Your task to perform on an android device: turn on notifications settings in the gmail app Image 0: 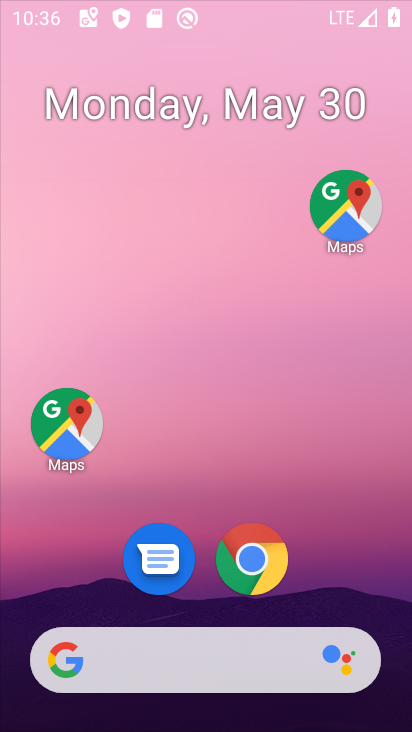
Step 0: click (347, 193)
Your task to perform on an android device: turn on notifications settings in the gmail app Image 1: 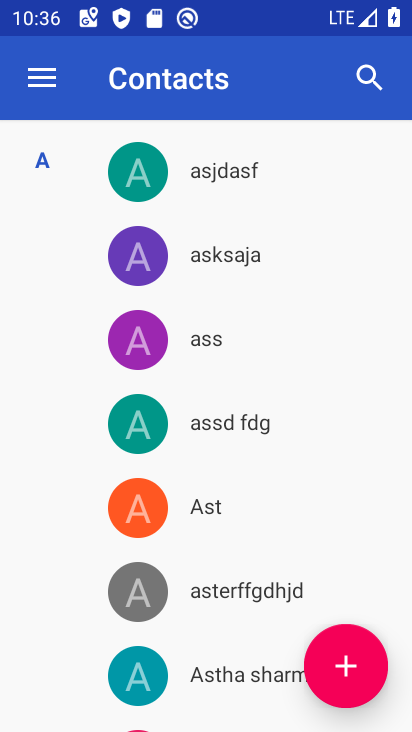
Step 1: press home button
Your task to perform on an android device: turn on notifications settings in the gmail app Image 2: 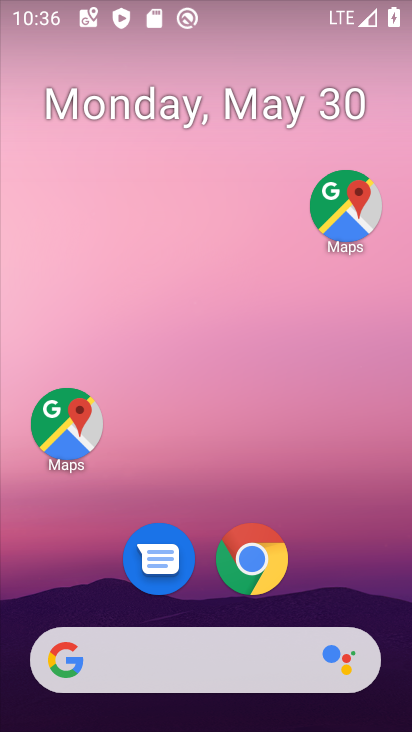
Step 2: drag from (318, 513) to (303, 162)
Your task to perform on an android device: turn on notifications settings in the gmail app Image 3: 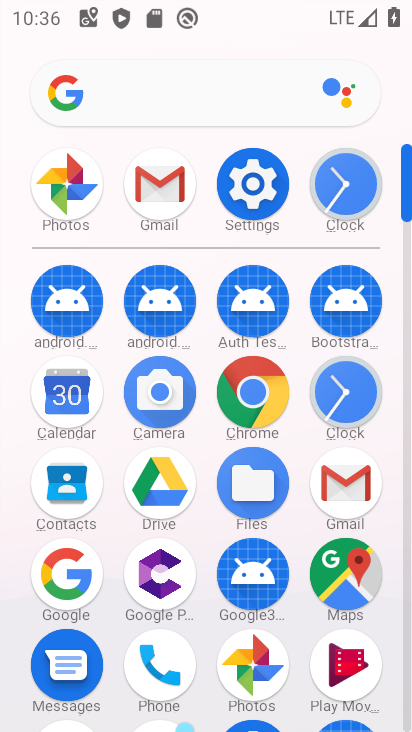
Step 3: click (144, 195)
Your task to perform on an android device: turn on notifications settings in the gmail app Image 4: 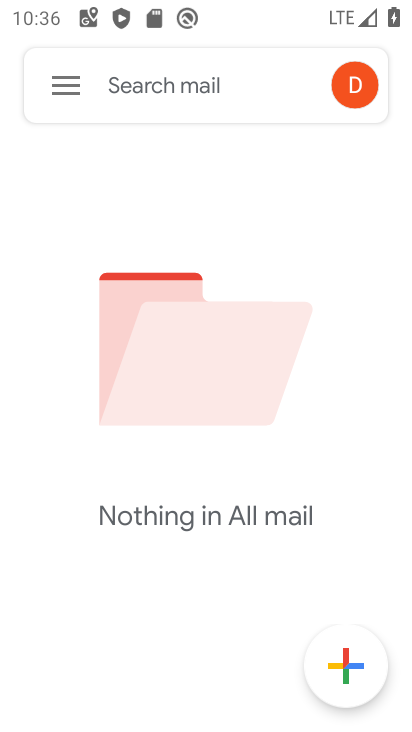
Step 4: click (62, 95)
Your task to perform on an android device: turn on notifications settings in the gmail app Image 5: 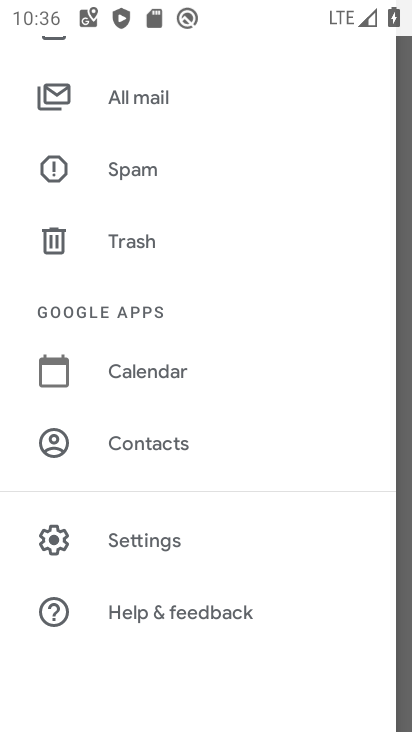
Step 5: click (140, 541)
Your task to perform on an android device: turn on notifications settings in the gmail app Image 6: 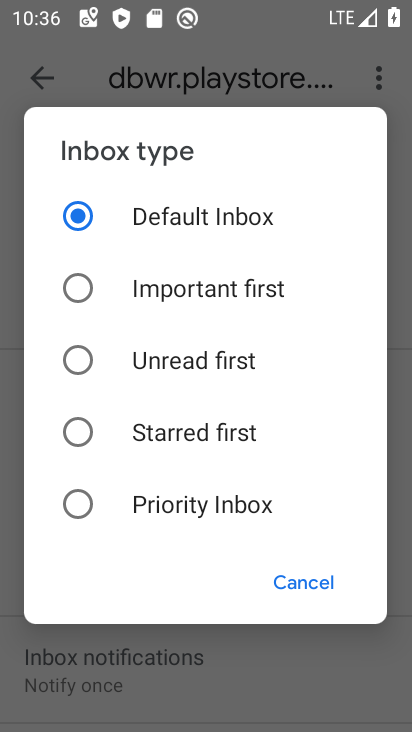
Step 6: click (280, 596)
Your task to perform on an android device: turn on notifications settings in the gmail app Image 7: 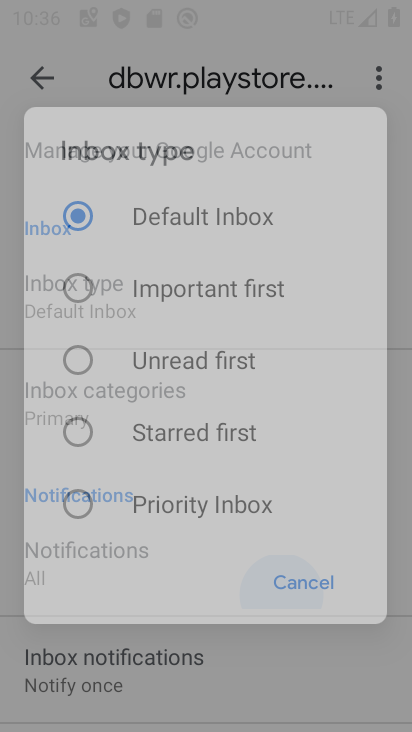
Step 7: click (287, 576)
Your task to perform on an android device: turn on notifications settings in the gmail app Image 8: 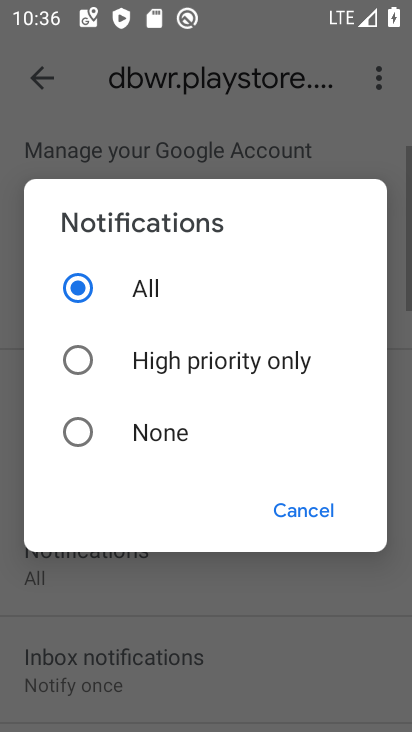
Step 8: click (328, 514)
Your task to perform on an android device: turn on notifications settings in the gmail app Image 9: 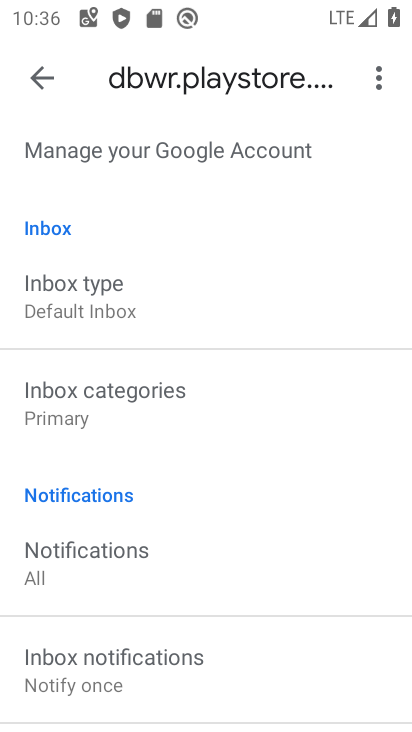
Step 9: drag from (195, 620) to (238, 336)
Your task to perform on an android device: turn on notifications settings in the gmail app Image 10: 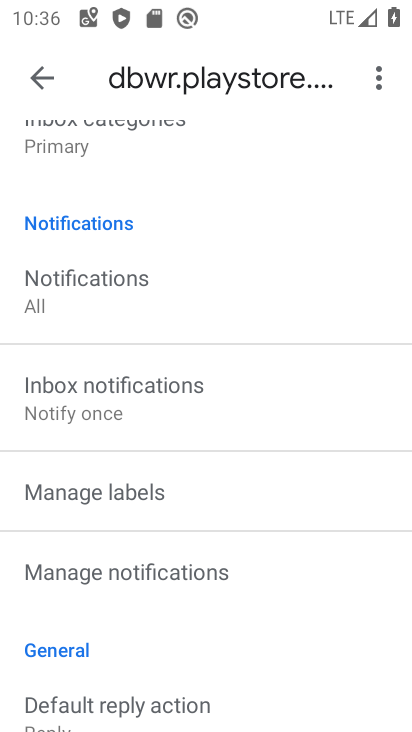
Step 10: click (168, 560)
Your task to perform on an android device: turn on notifications settings in the gmail app Image 11: 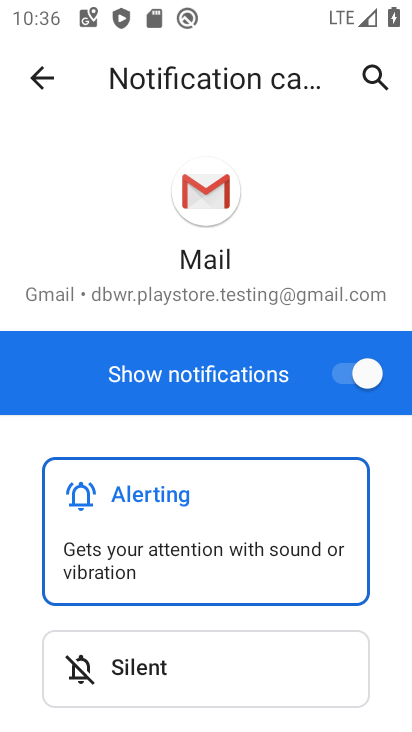
Step 11: task complete